Your task to perform on an android device: Go to eBay Image 0: 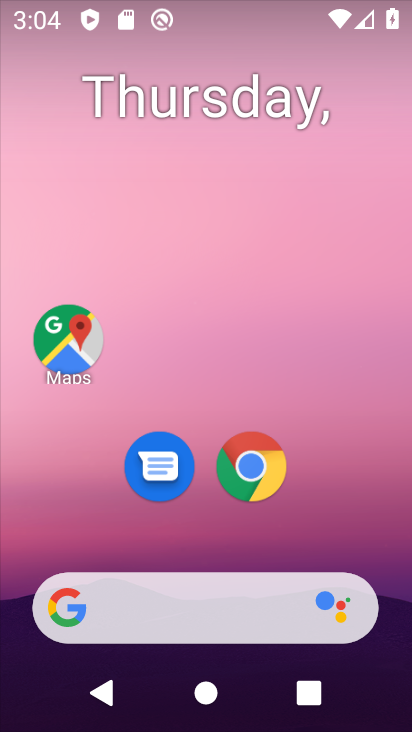
Step 0: click (251, 458)
Your task to perform on an android device: Go to eBay Image 1: 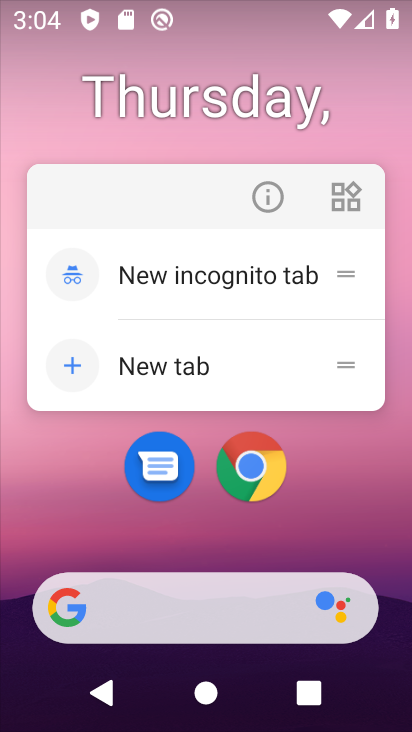
Step 1: click (254, 455)
Your task to perform on an android device: Go to eBay Image 2: 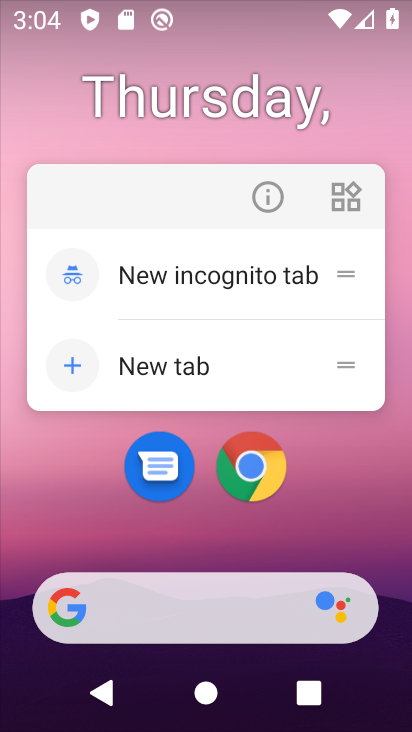
Step 2: click (254, 454)
Your task to perform on an android device: Go to eBay Image 3: 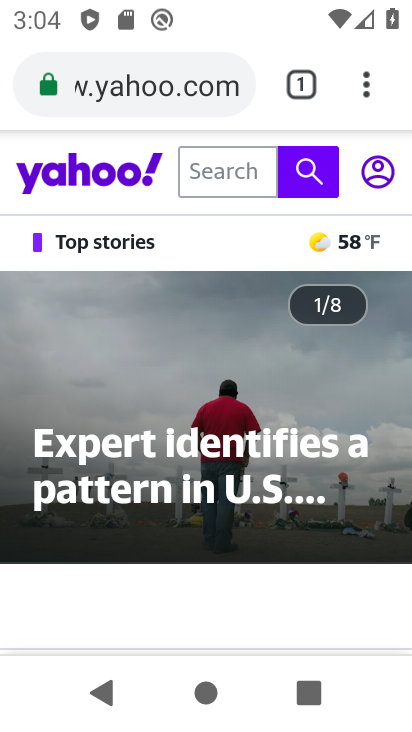
Step 3: click (297, 96)
Your task to perform on an android device: Go to eBay Image 4: 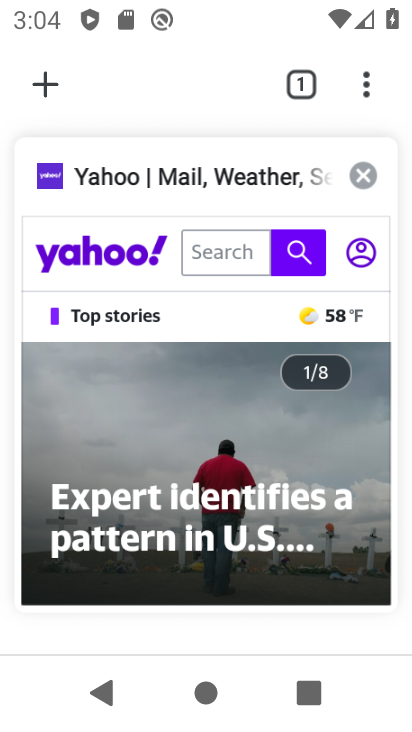
Step 4: click (42, 72)
Your task to perform on an android device: Go to eBay Image 5: 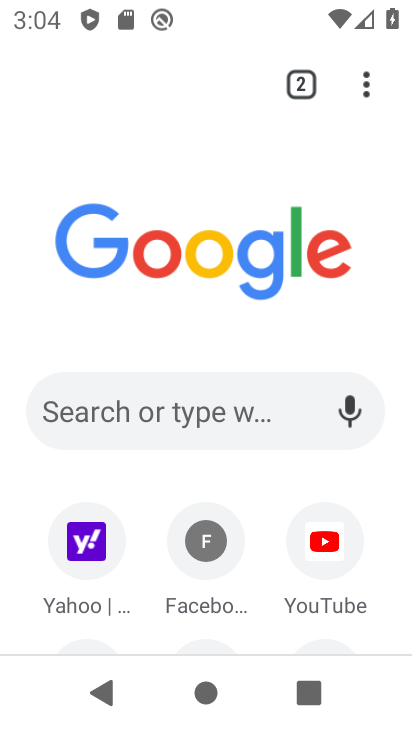
Step 5: click (165, 422)
Your task to perform on an android device: Go to eBay Image 6: 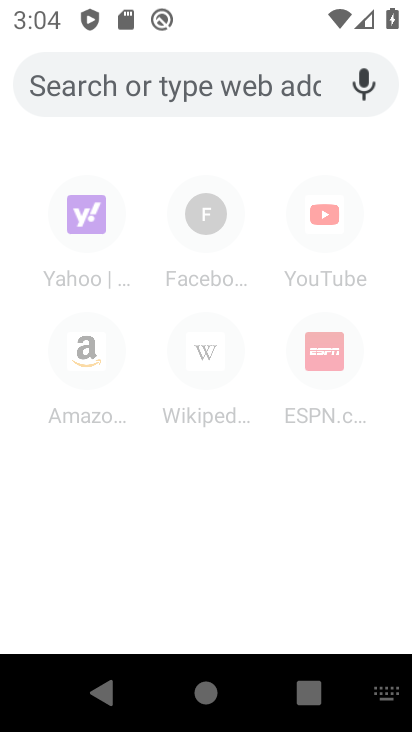
Step 6: type "ebay"
Your task to perform on an android device: Go to eBay Image 7: 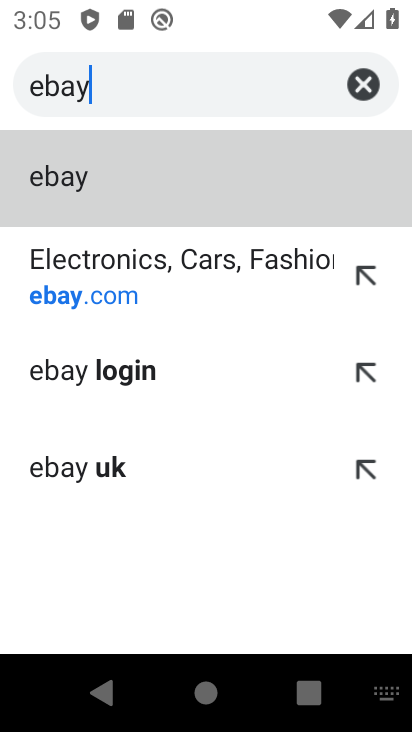
Step 7: click (292, 195)
Your task to perform on an android device: Go to eBay Image 8: 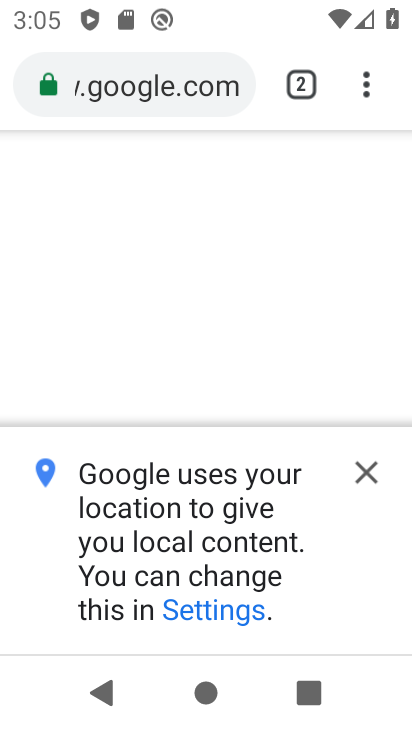
Step 8: task complete